Your task to perform on an android device: turn on notifications settings in the gmail app Image 0: 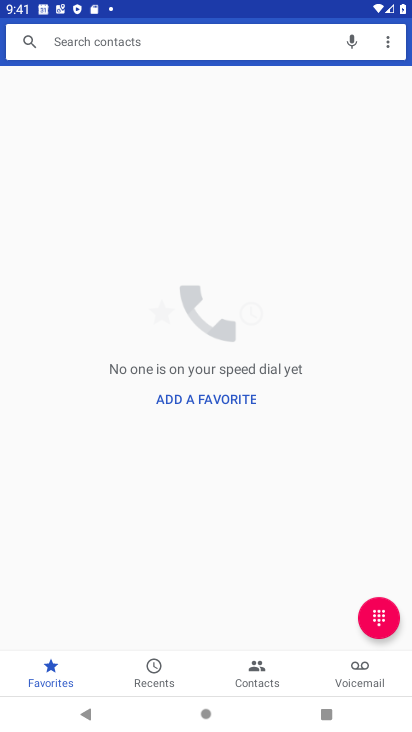
Step 0: press back button
Your task to perform on an android device: turn on notifications settings in the gmail app Image 1: 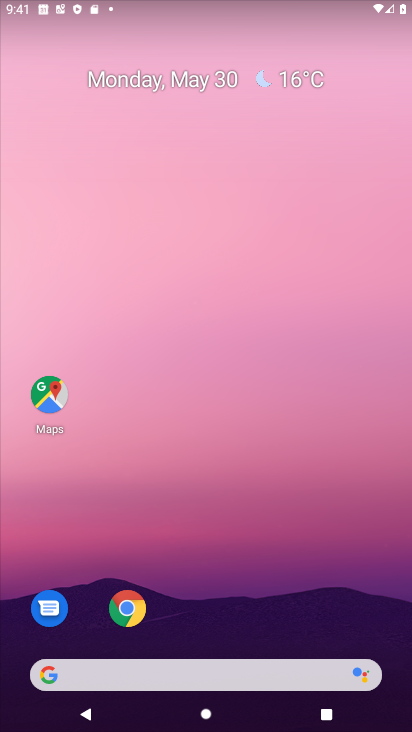
Step 1: drag from (389, 694) to (367, 161)
Your task to perform on an android device: turn on notifications settings in the gmail app Image 2: 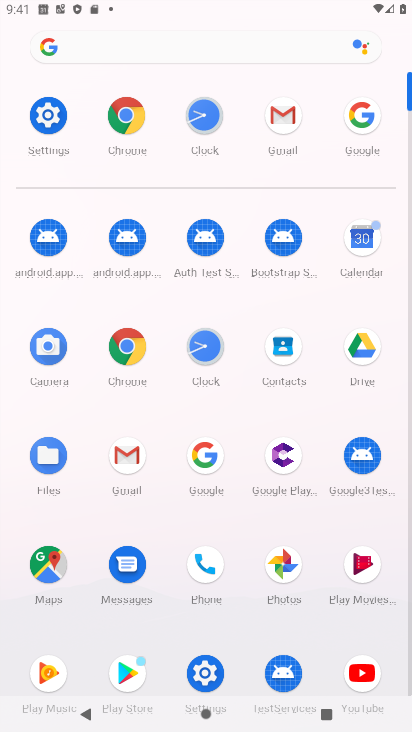
Step 2: click (277, 115)
Your task to perform on an android device: turn on notifications settings in the gmail app Image 3: 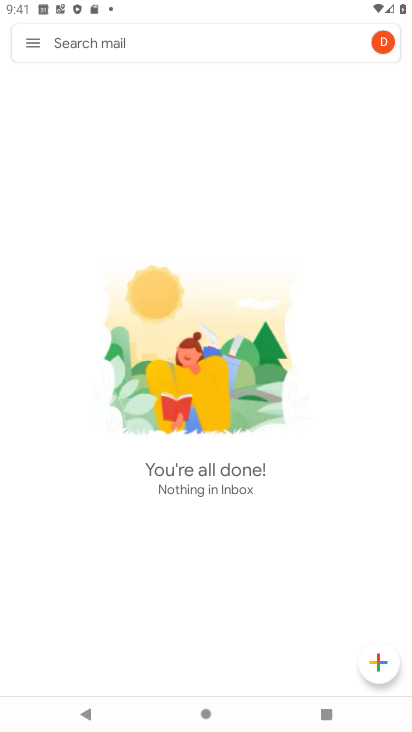
Step 3: click (26, 39)
Your task to perform on an android device: turn on notifications settings in the gmail app Image 4: 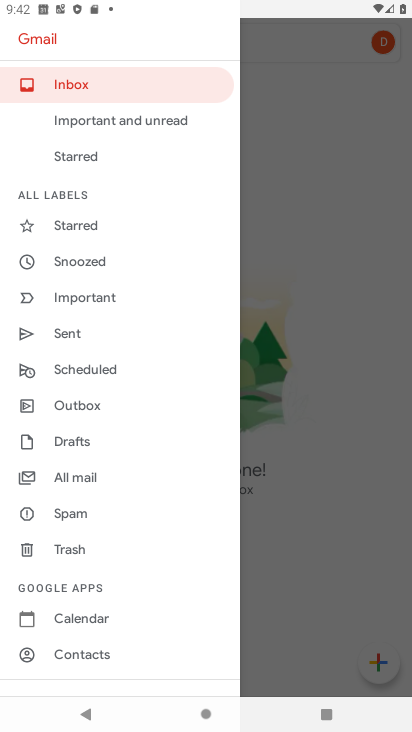
Step 4: drag from (162, 613) to (163, 277)
Your task to perform on an android device: turn on notifications settings in the gmail app Image 5: 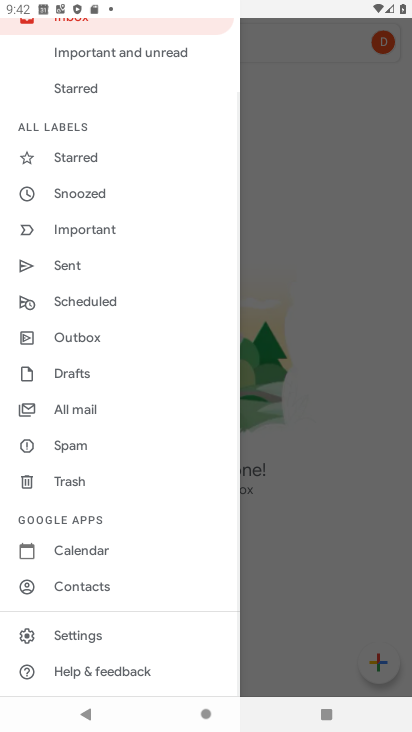
Step 5: click (52, 634)
Your task to perform on an android device: turn on notifications settings in the gmail app Image 6: 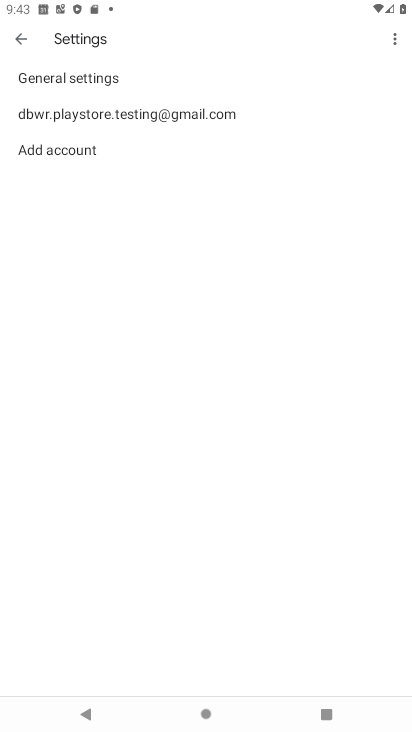
Step 6: click (58, 68)
Your task to perform on an android device: turn on notifications settings in the gmail app Image 7: 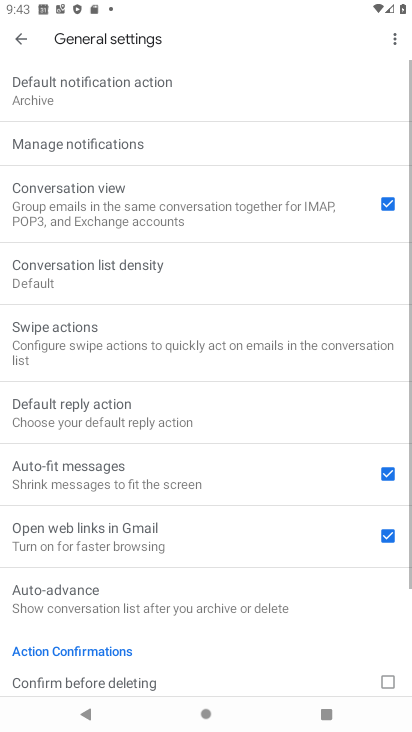
Step 7: click (98, 142)
Your task to perform on an android device: turn on notifications settings in the gmail app Image 8: 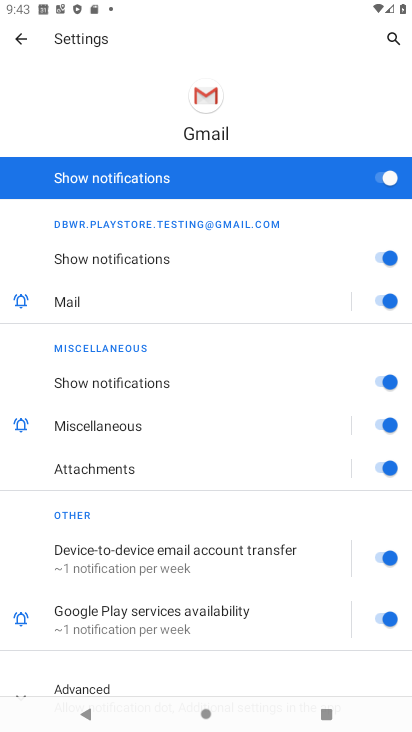
Step 8: task complete